Your task to perform on an android device: Open the map Image 0: 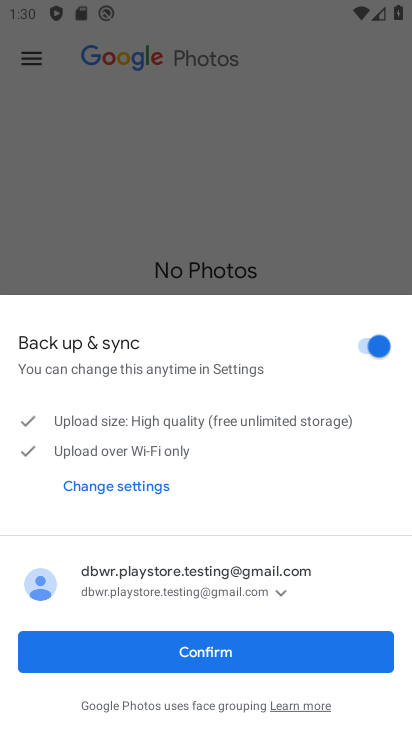
Step 0: press home button
Your task to perform on an android device: Open the map Image 1: 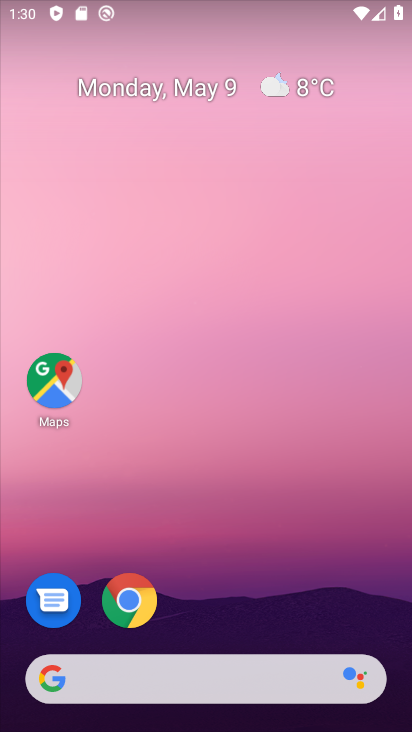
Step 1: drag from (220, 632) to (240, 221)
Your task to perform on an android device: Open the map Image 2: 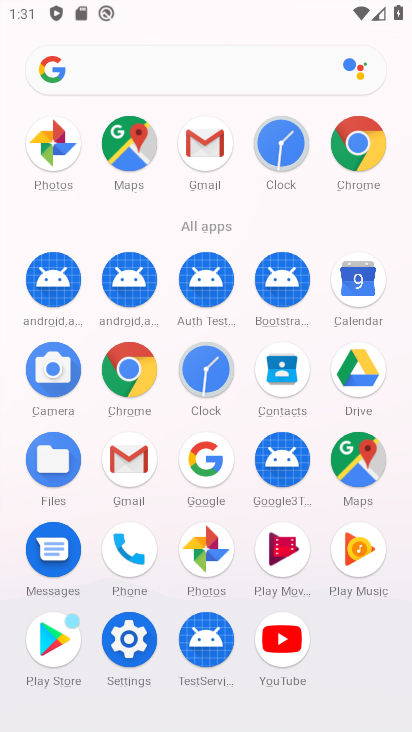
Step 2: click (124, 140)
Your task to perform on an android device: Open the map Image 3: 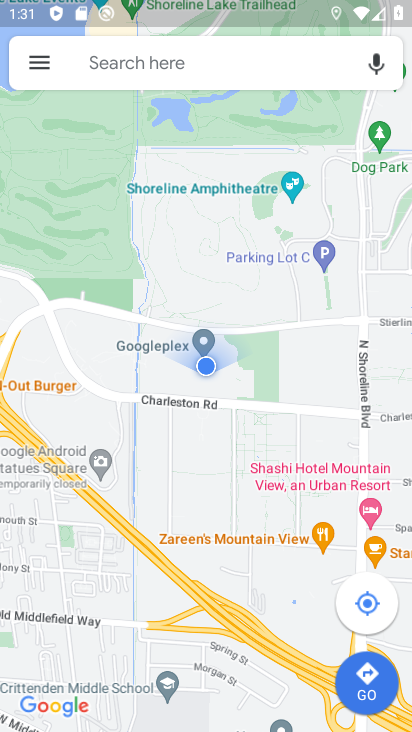
Step 3: drag from (180, 526) to (202, 223)
Your task to perform on an android device: Open the map Image 4: 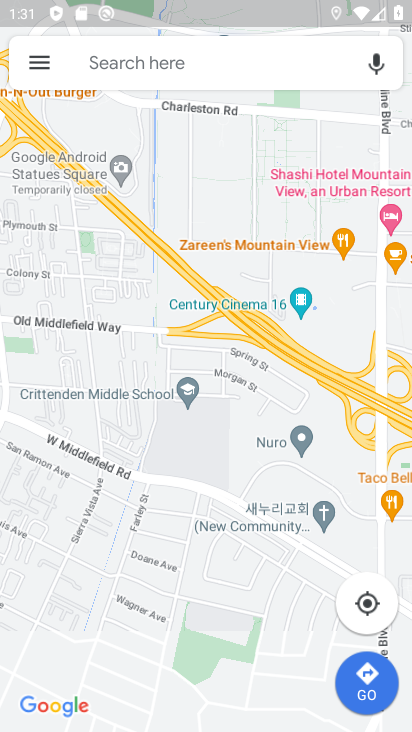
Step 4: click (26, 62)
Your task to perform on an android device: Open the map Image 5: 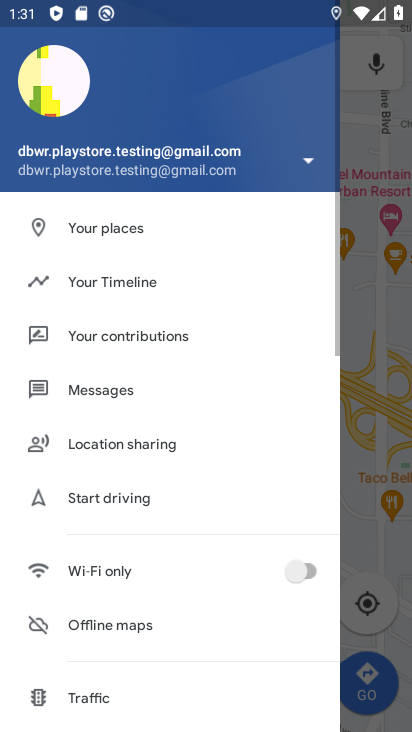
Step 5: task complete